Your task to perform on an android device: Open notification settings Image 0: 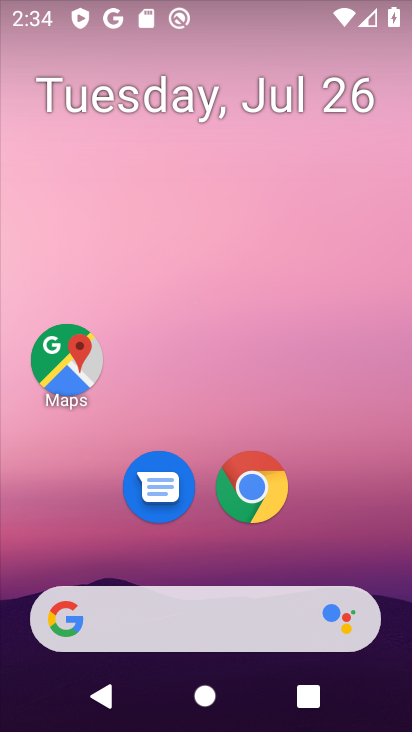
Step 0: drag from (227, 581) to (312, 4)
Your task to perform on an android device: Open notification settings Image 1: 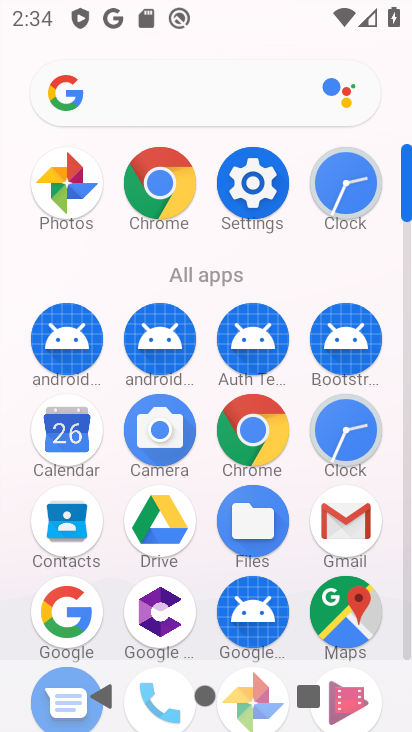
Step 1: click (260, 182)
Your task to perform on an android device: Open notification settings Image 2: 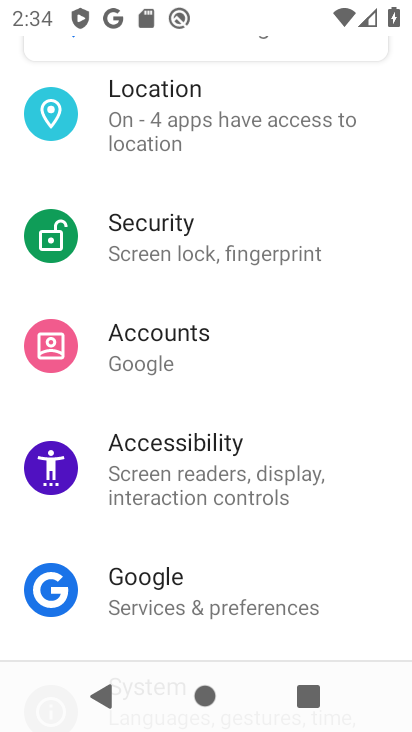
Step 2: drag from (277, 175) to (161, 726)
Your task to perform on an android device: Open notification settings Image 3: 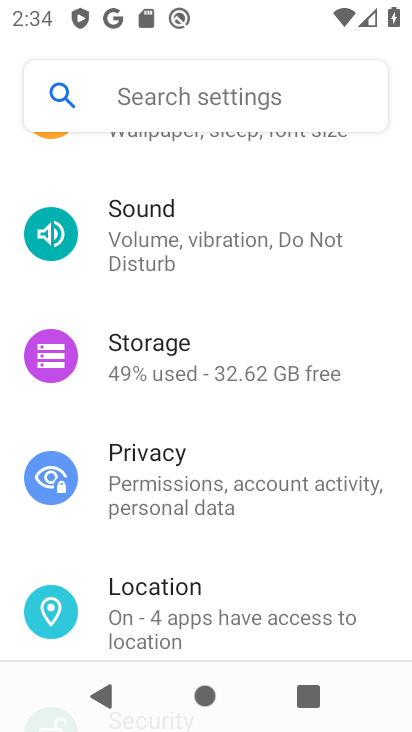
Step 3: drag from (230, 229) to (165, 644)
Your task to perform on an android device: Open notification settings Image 4: 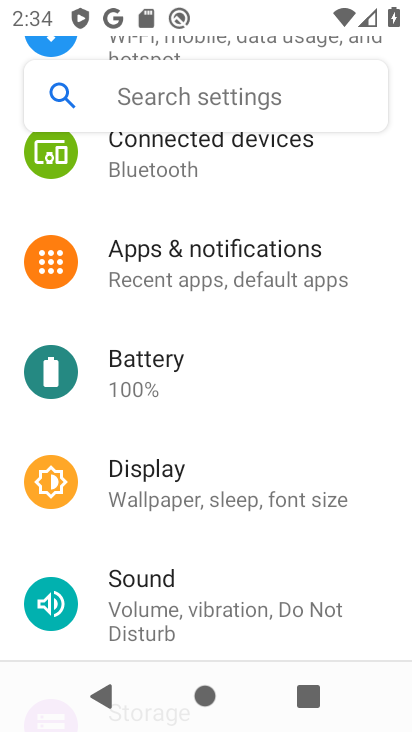
Step 4: click (152, 271)
Your task to perform on an android device: Open notification settings Image 5: 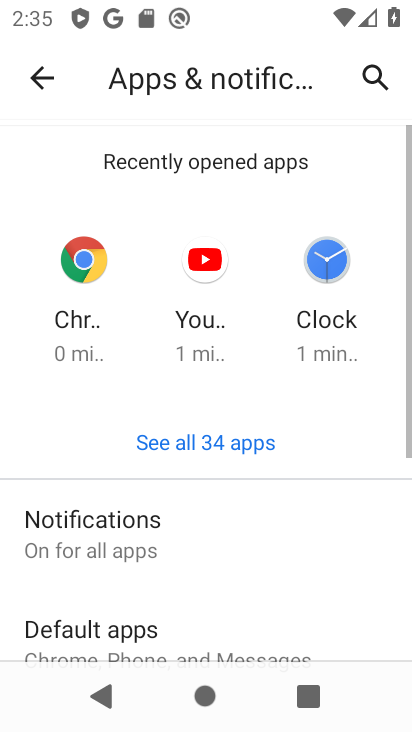
Step 5: click (127, 559)
Your task to perform on an android device: Open notification settings Image 6: 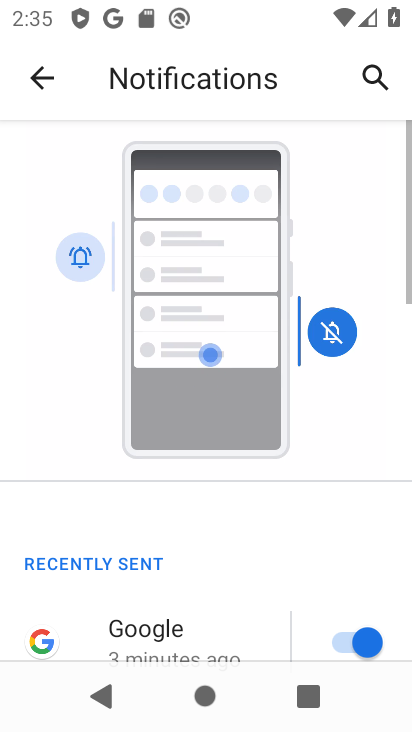
Step 6: task complete